Your task to perform on an android device: Open battery settings Image 0: 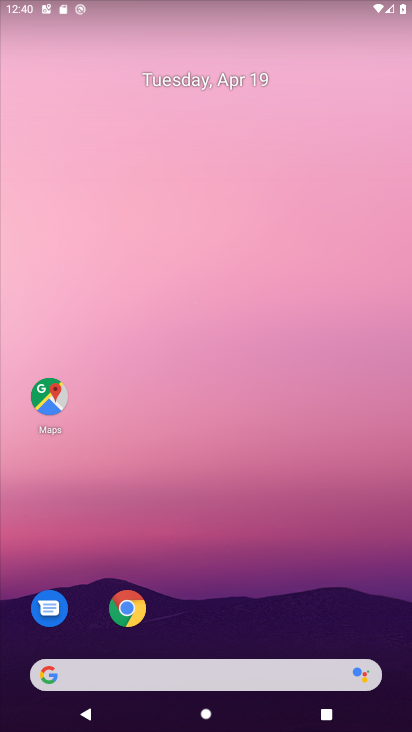
Step 0: drag from (175, 664) to (348, 67)
Your task to perform on an android device: Open battery settings Image 1: 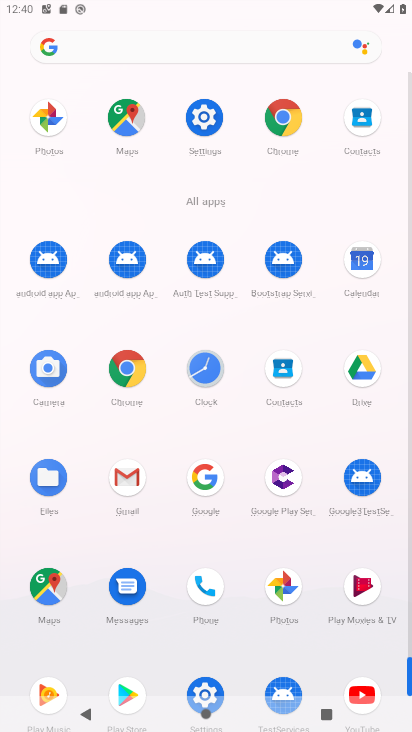
Step 1: drag from (220, 645) to (296, 472)
Your task to perform on an android device: Open battery settings Image 2: 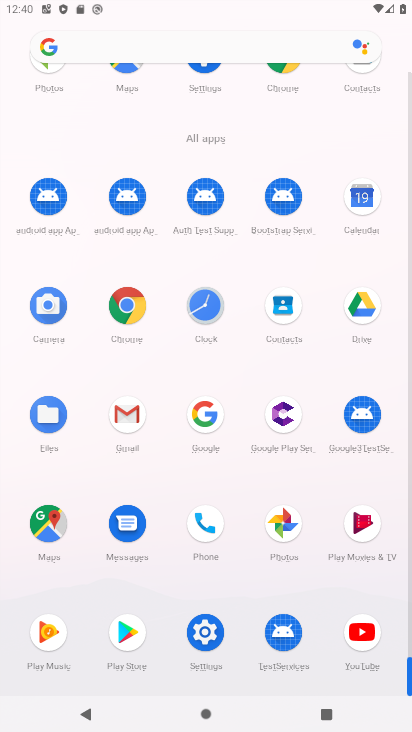
Step 2: click (217, 639)
Your task to perform on an android device: Open battery settings Image 3: 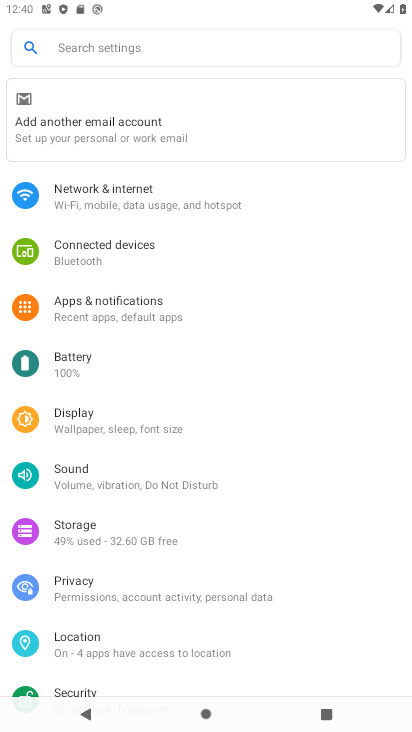
Step 3: click (142, 359)
Your task to perform on an android device: Open battery settings Image 4: 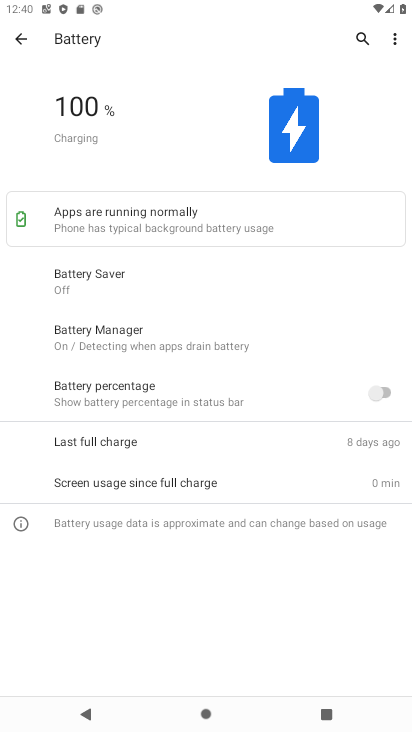
Step 4: task complete